Your task to perform on an android device: add a contact Image 0: 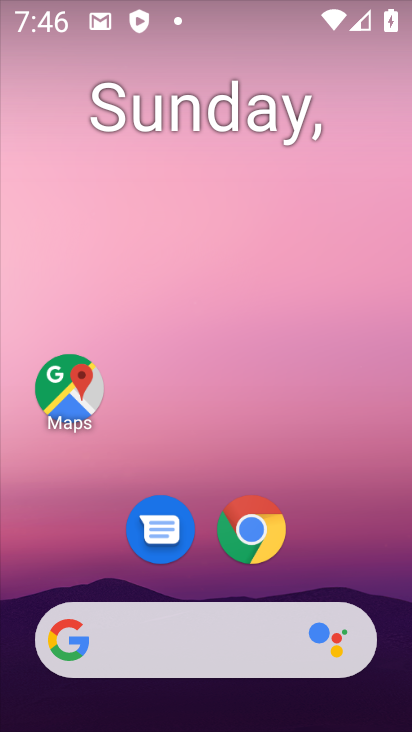
Step 0: drag from (223, 590) to (265, 100)
Your task to perform on an android device: add a contact Image 1: 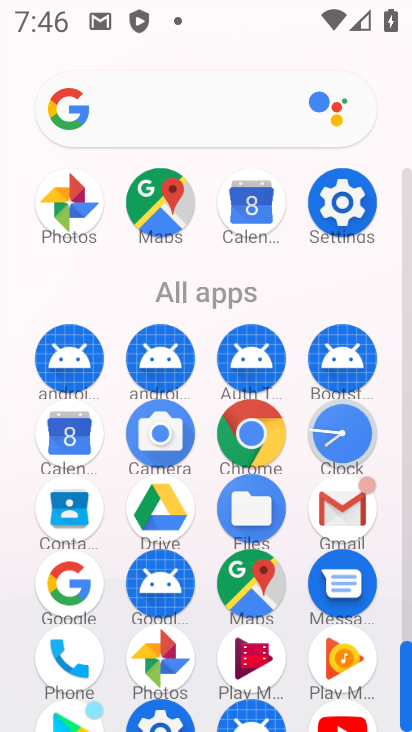
Step 1: click (73, 503)
Your task to perform on an android device: add a contact Image 2: 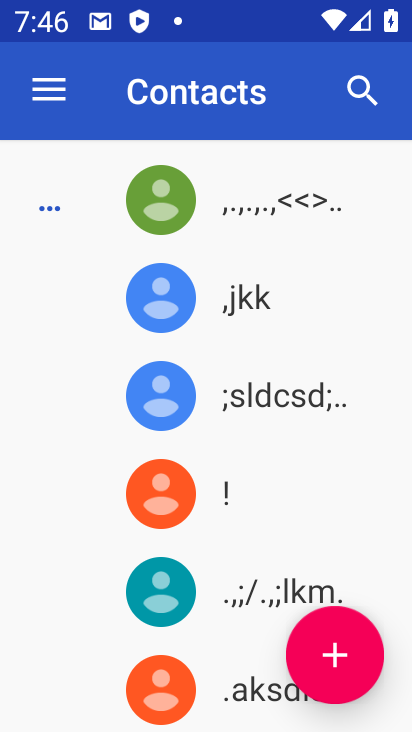
Step 2: click (353, 653)
Your task to perform on an android device: add a contact Image 3: 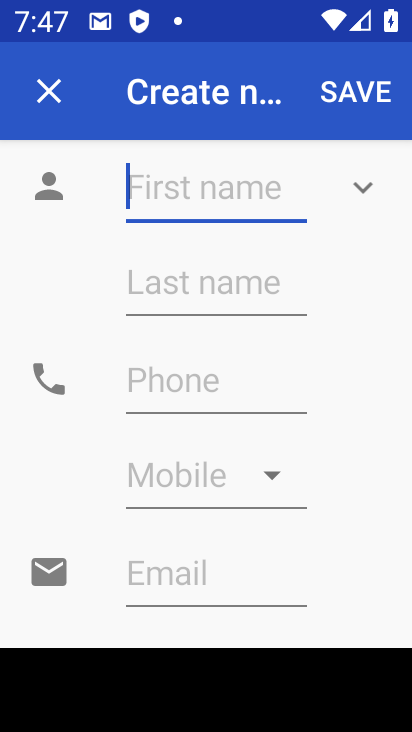
Step 3: type "claudia"
Your task to perform on an android device: add a contact Image 4: 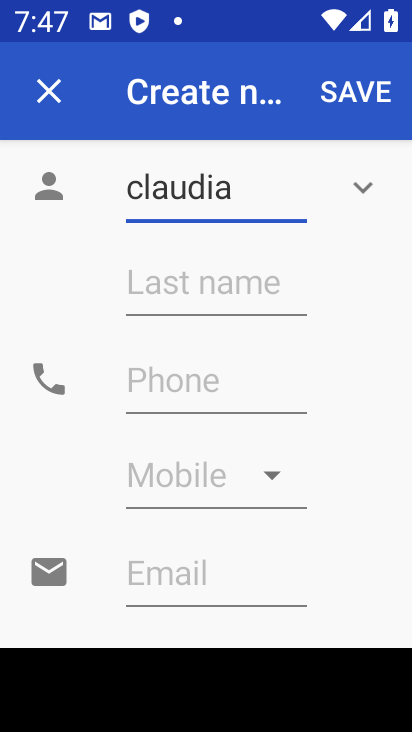
Step 4: click (375, 92)
Your task to perform on an android device: add a contact Image 5: 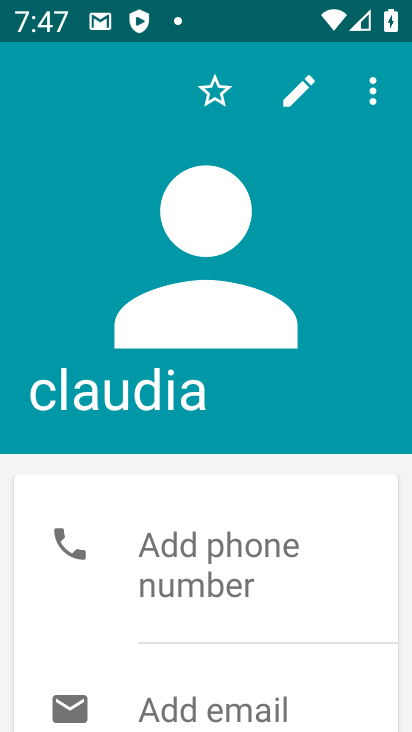
Step 5: task complete